Your task to perform on an android device: Search for the best selling phone on AliExpress Image 0: 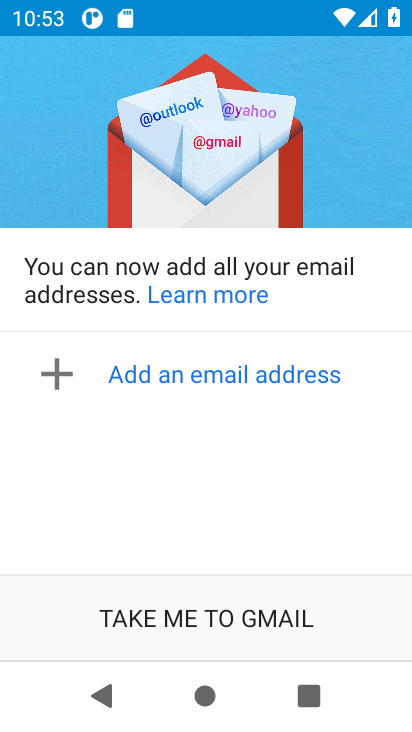
Step 0: task complete